Your task to perform on an android device: check android version Image 0: 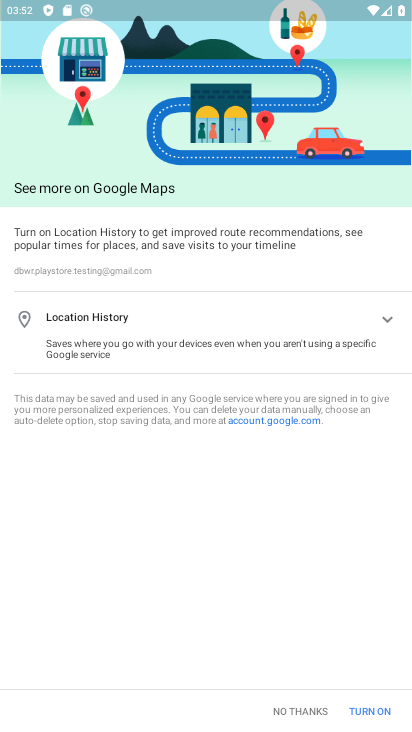
Step 0: press home button
Your task to perform on an android device: check android version Image 1: 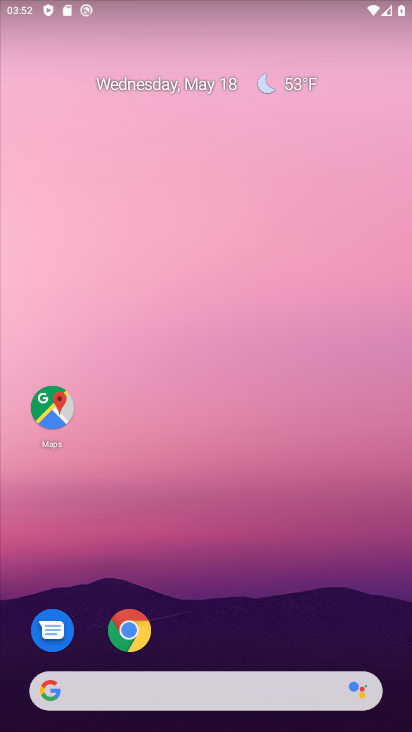
Step 1: drag from (173, 667) to (189, 20)
Your task to perform on an android device: check android version Image 2: 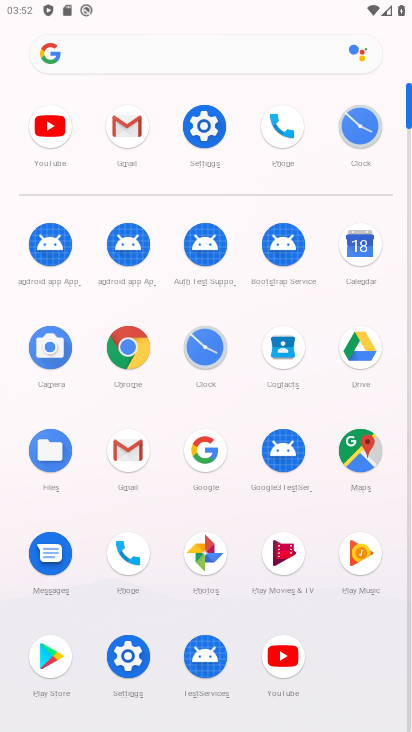
Step 2: click (203, 128)
Your task to perform on an android device: check android version Image 3: 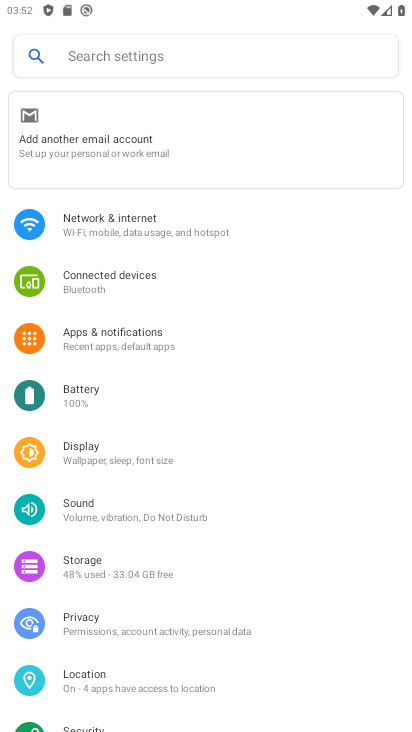
Step 3: drag from (161, 699) to (185, 266)
Your task to perform on an android device: check android version Image 4: 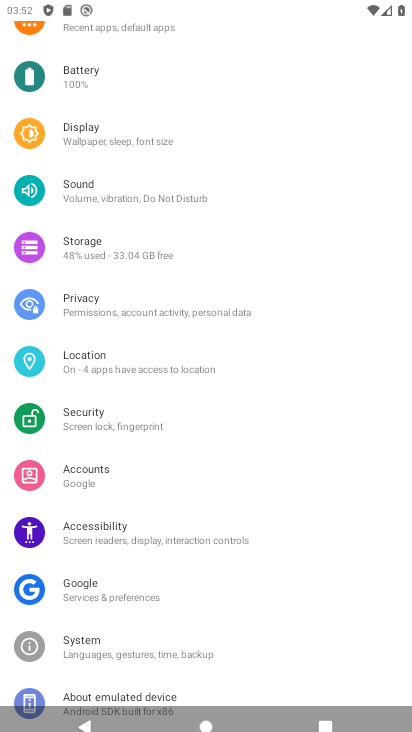
Step 4: drag from (170, 642) to (194, 191)
Your task to perform on an android device: check android version Image 5: 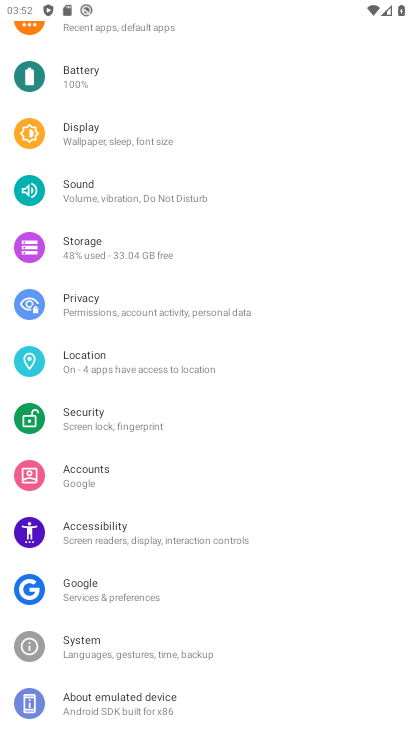
Step 5: click (122, 694)
Your task to perform on an android device: check android version Image 6: 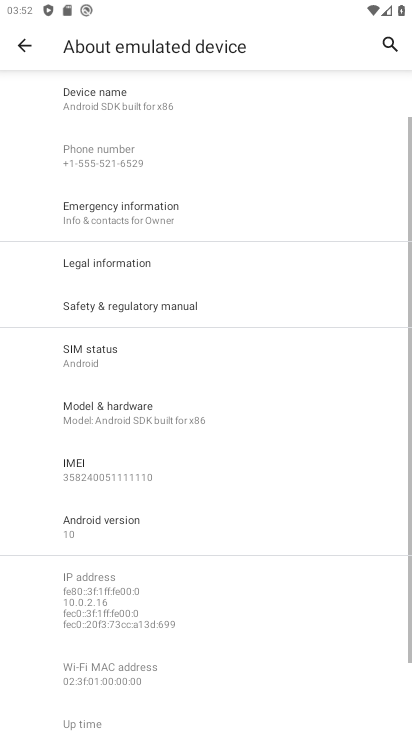
Step 6: click (117, 522)
Your task to perform on an android device: check android version Image 7: 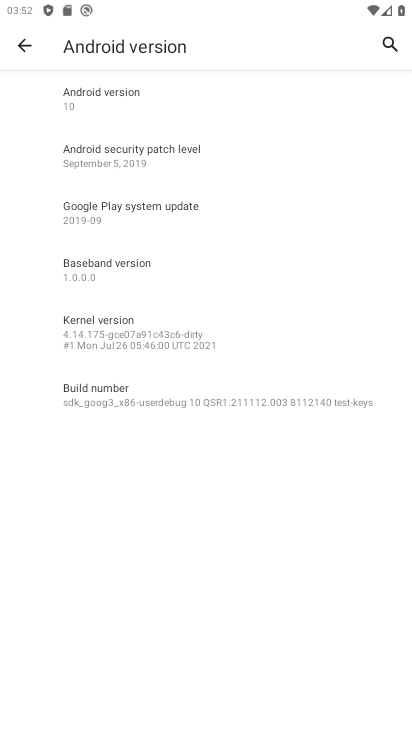
Step 7: task complete